Your task to perform on an android device: change the clock display to show seconds Image 0: 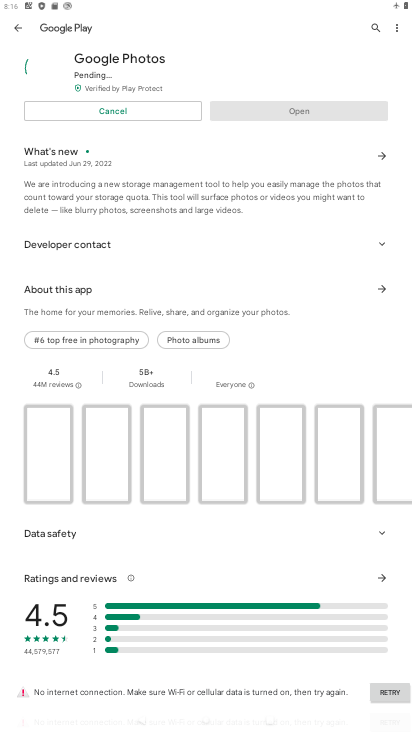
Step 0: press back button
Your task to perform on an android device: change the clock display to show seconds Image 1: 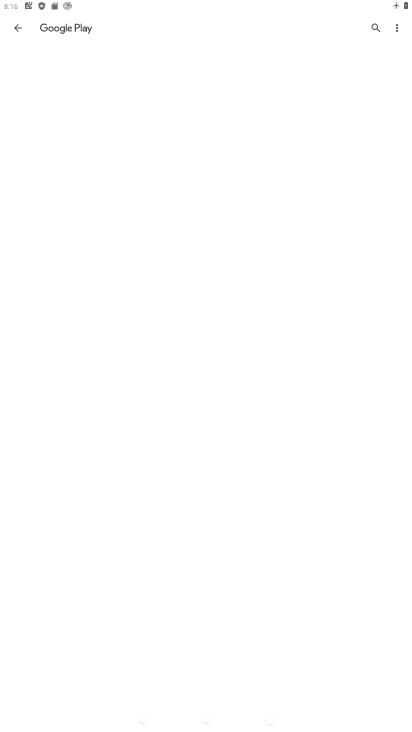
Step 1: press back button
Your task to perform on an android device: change the clock display to show seconds Image 2: 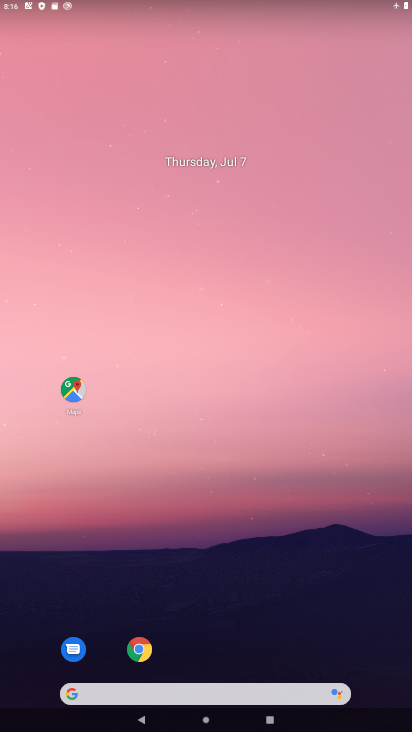
Step 2: drag from (243, 644) to (173, 156)
Your task to perform on an android device: change the clock display to show seconds Image 3: 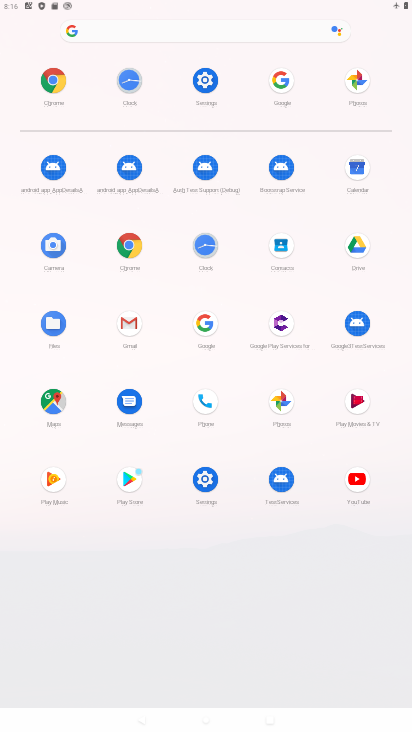
Step 3: click (204, 241)
Your task to perform on an android device: change the clock display to show seconds Image 4: 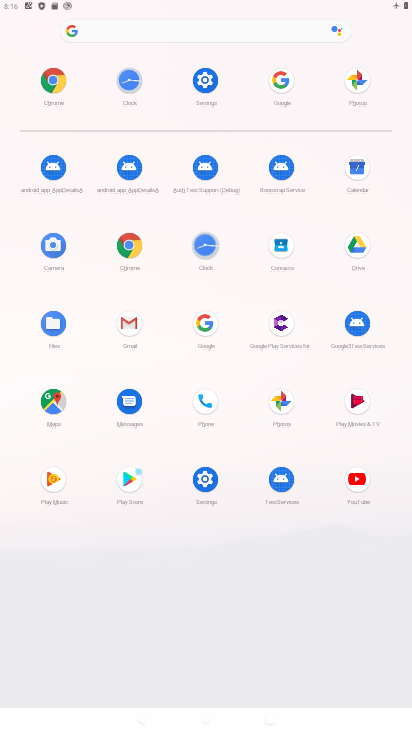
Step 4: click (211, 252)
Your task to perform on an android device: change the clock display to show seconds Image 5: 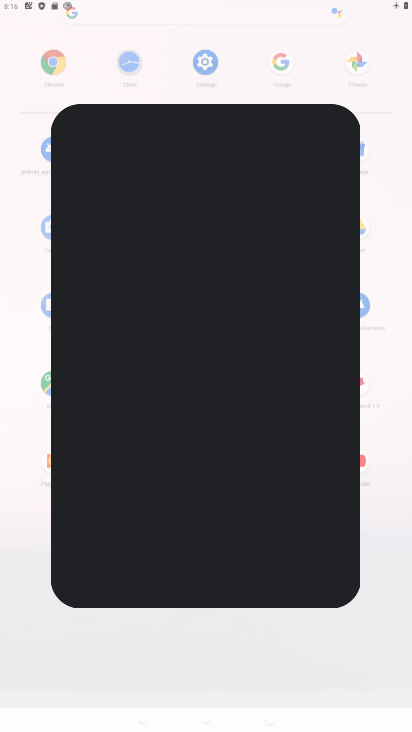
Step 5: click (214, 252)
Your task to perform on an android device: change the clock display to show seconds Image 6: 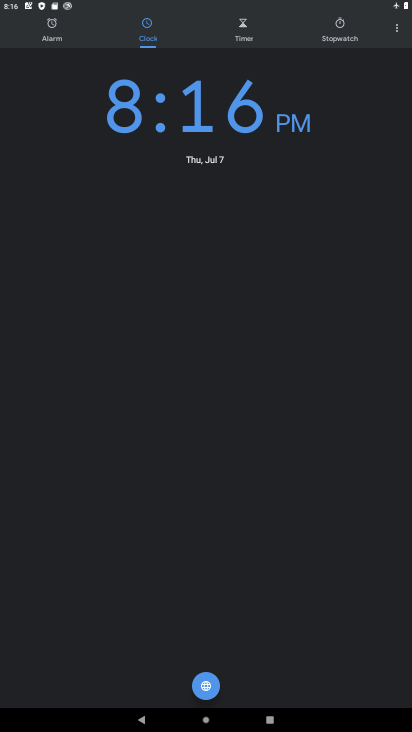
Step 6: click (402, 27)
Your task to perform on an android device: change the clock display to show seconds Image 7: 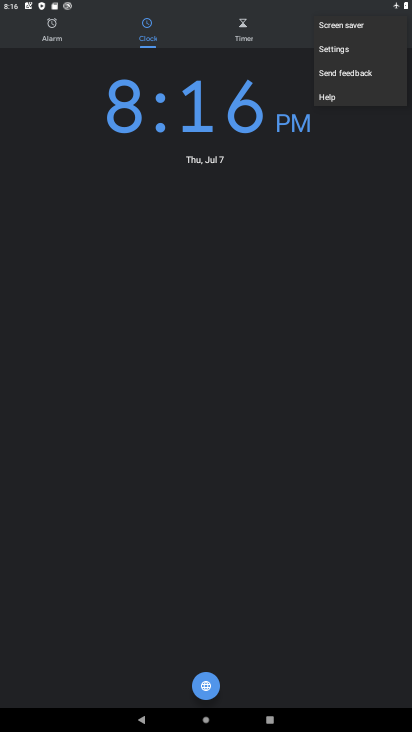
Step 7: click (396, 34)
Your task to perform on an android device: change the clock display to show seconds Image 8: 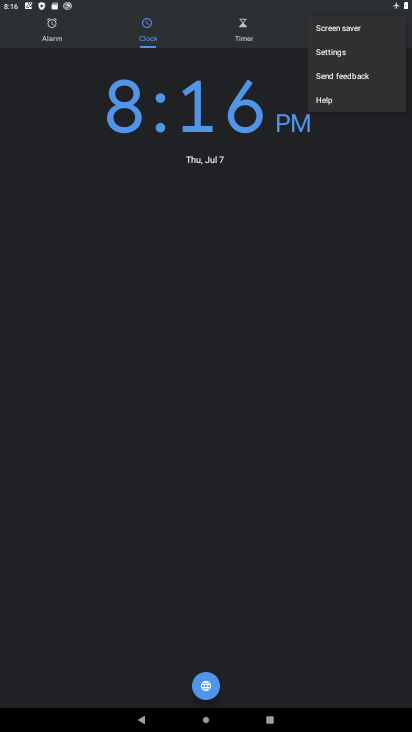
Step 8: click (398, 36)
Your task to perform on an android device: change the clock display to show seconds Image 9: 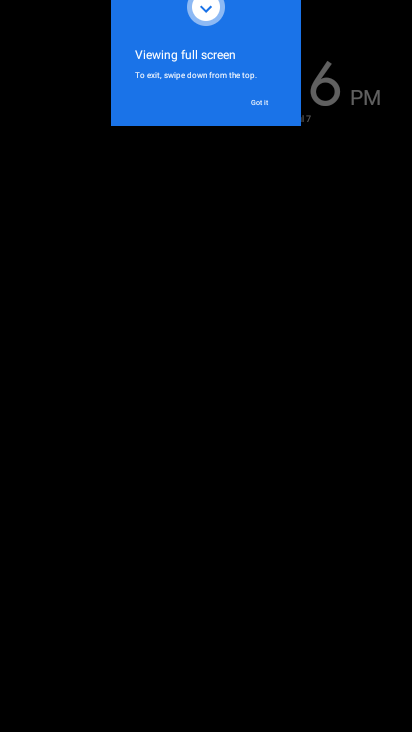
Step 9: click (254, 103)
Your task to perform on an android device: change the clock display to show seconds Image 10: 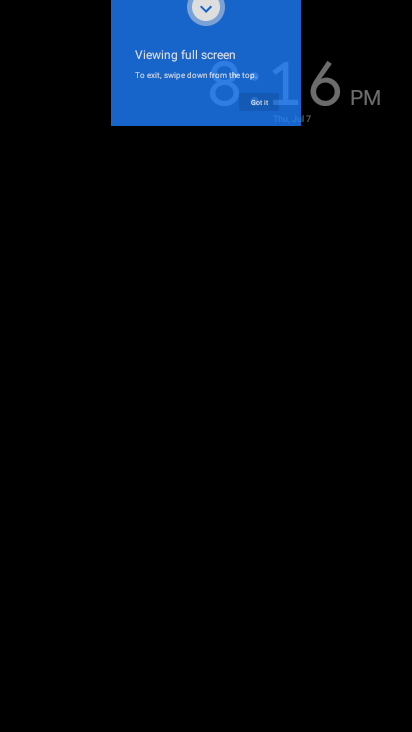
Step 10: click (255, 100)
Your task to perform on an android device: change the clock display to show seconds Image 11: 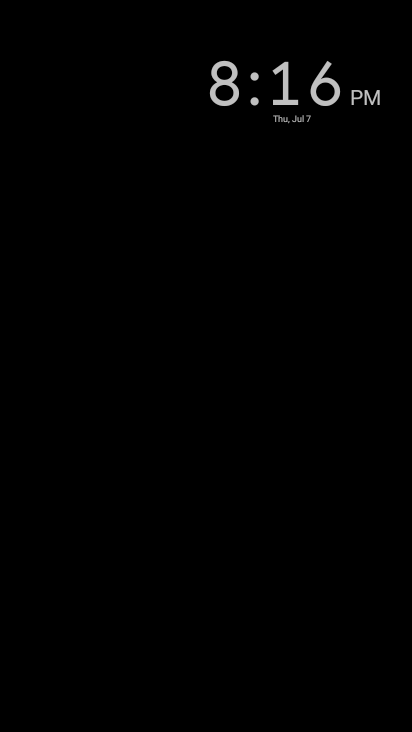
Step 11: click (257, 102)
Your task to perform on an android device: change the clock display to show seconds Image 12: 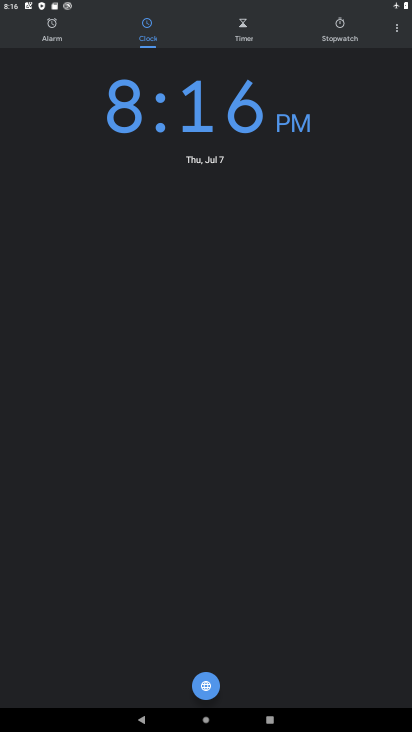
Step 12: click (398, 21)
Your task to perform on an android device: change the clock display to show seconds Image 13: 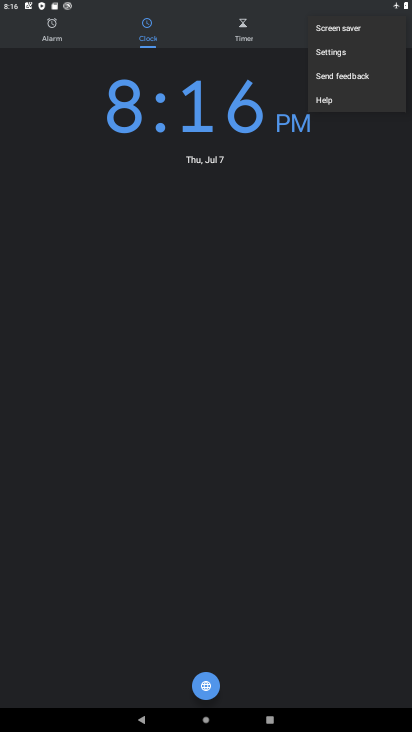
Step 13: click (327, 44)
Your task to perform on an android device: change the clock display to show seconds Image 14: 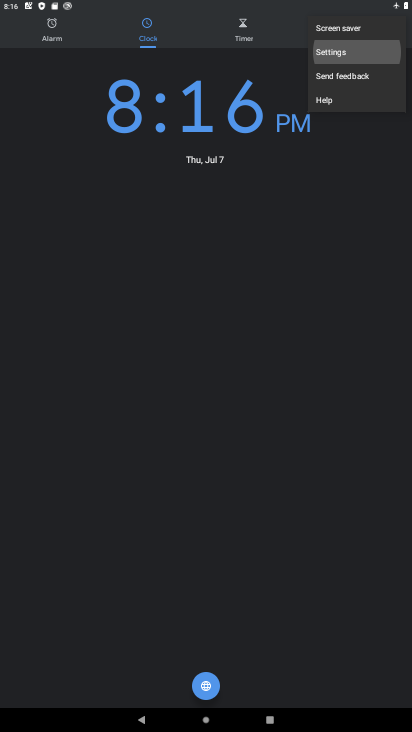
Step 14: click (327, 44)
Your task to perform on an android device: change the clock display to show seconds Image 15: 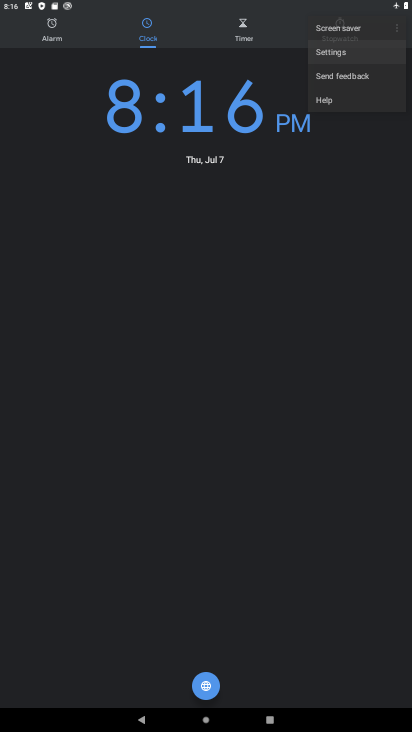
Step 15: click (327, 44)
Your task to perform on an android device: change the clock display to show seconds Image 16: 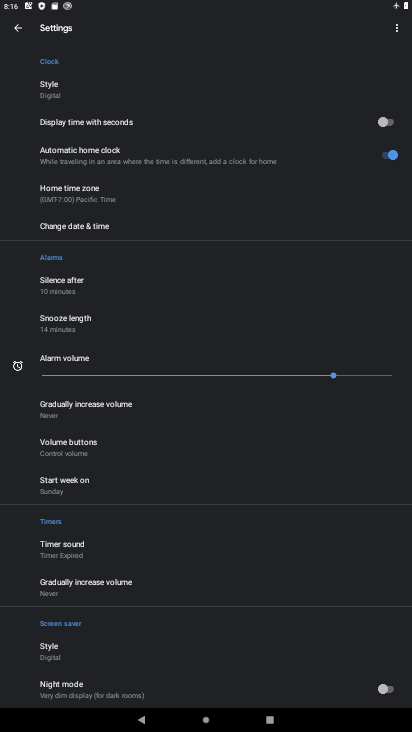
Step 16: click (381, 118)
Your task to perform on an android device: change the clock display to show seconds Image 17: 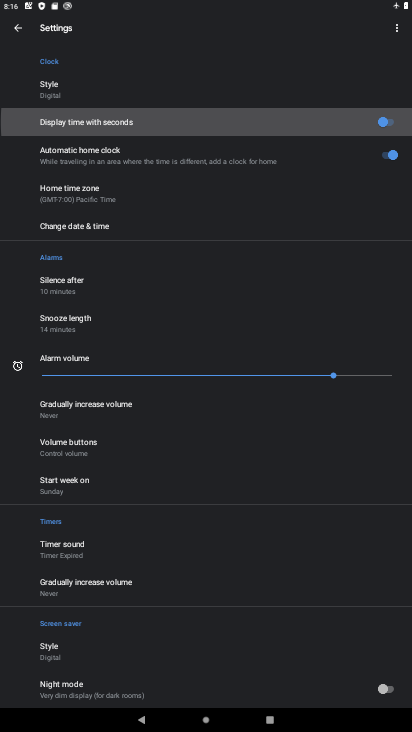
Step 17: click (382, 119)
Your task to perform on an android device: change the clock display to show seconds Image 18: 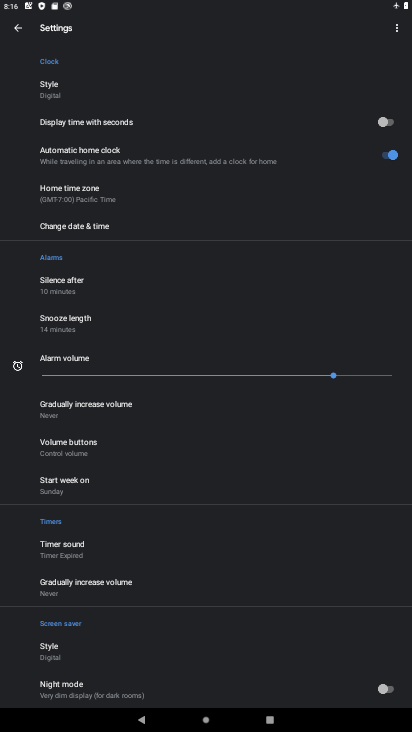
Step 18: click (381, 131)
Your task to perform on an android device: change the clock display to show seconds Image 19: 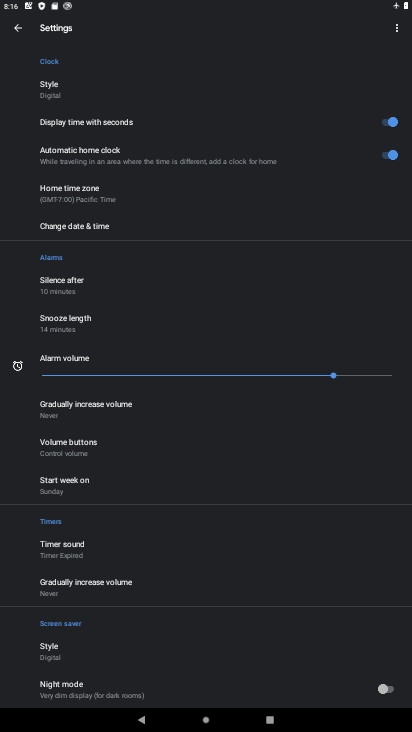
Step 19: task complete